Your task to perform on an android device: turn off picture-in-picture Image 0: 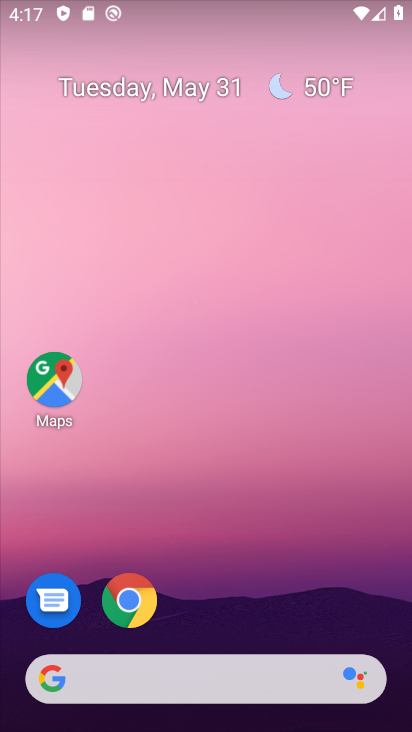
Step 0: click (128, 596)
Your task to perform on an android device: turn off picture-in-picture Image 1: 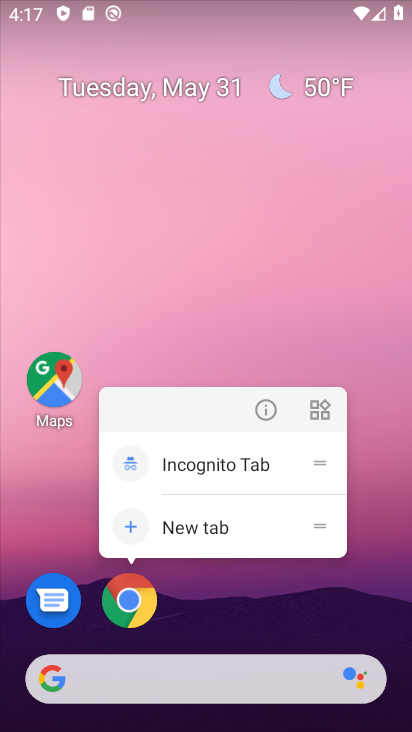
Step 1: click (262, 411)
Your task to perform on an android device: turn off picture-in-picture Image 2: 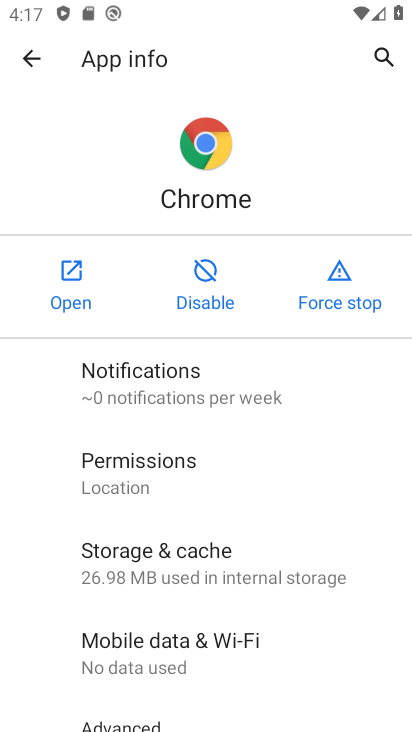
Step 2: drag from (221, 471) to (218, 335)
Your task to perform on an android device: turn off picture-in-picture Image 3: 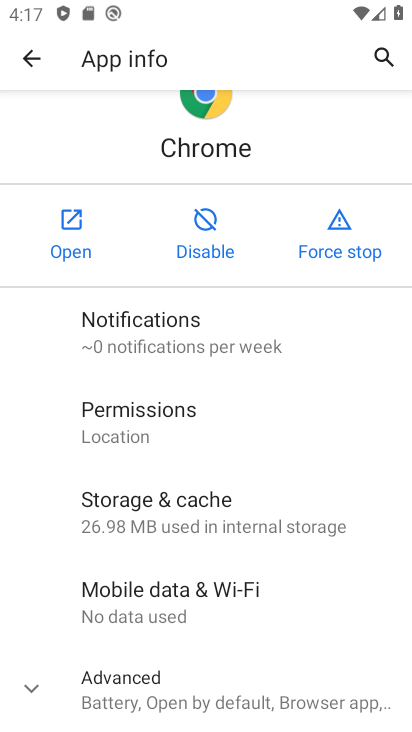
Step 3: drag from (192, 564) to (196, 458)
Your task to perform on an android device: turn off picture-in-picture Image 4: 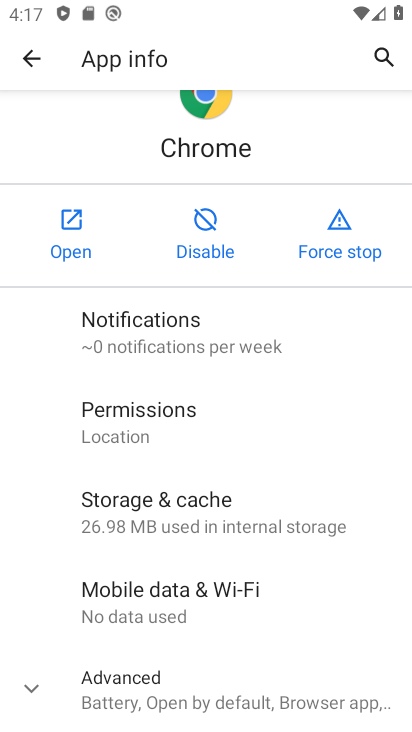
Step 4: click (140, 694)
Your task to perform on an android device: turn off picture-in-picture Image 5: 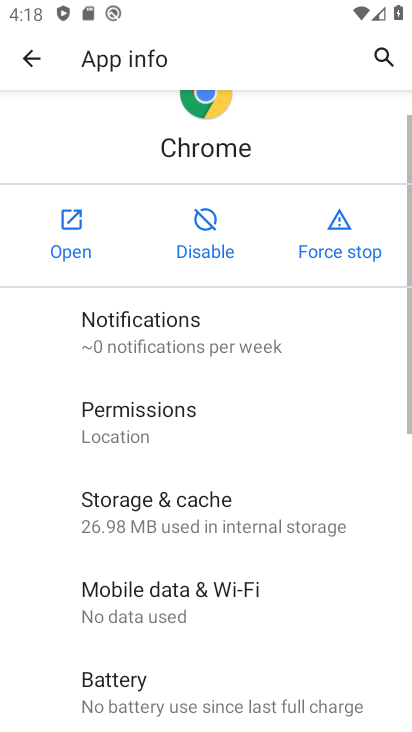
Step 5: drag from (166, 634) to (223, 535)
Your task to perform on an android device: turn off picture-in-picture Image 6: 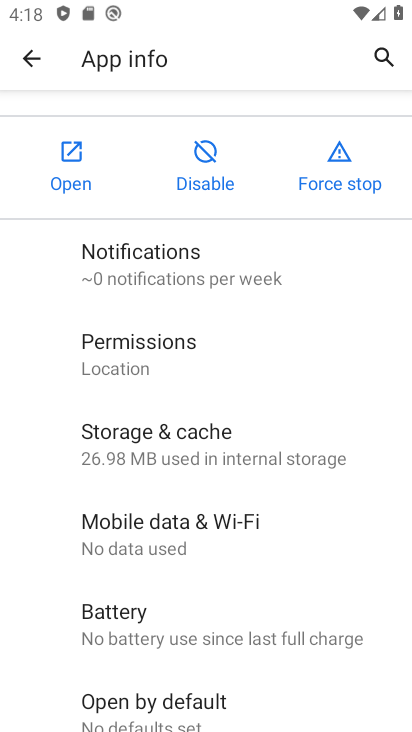
Step 6: drag from (161, 668) to (223, 579)
Your task to perform on an android device: turn off picture-in-picture Image 7: 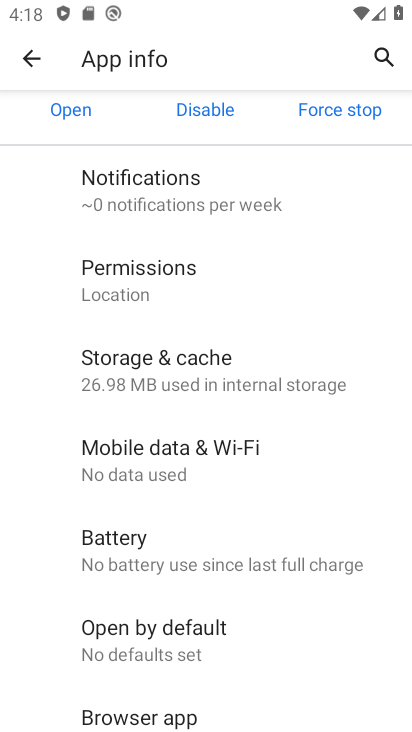
Step 7: drag from (148, 673) to (214, 600)
Your task to perform on an android device: turn off picture-in-picture Image 8: 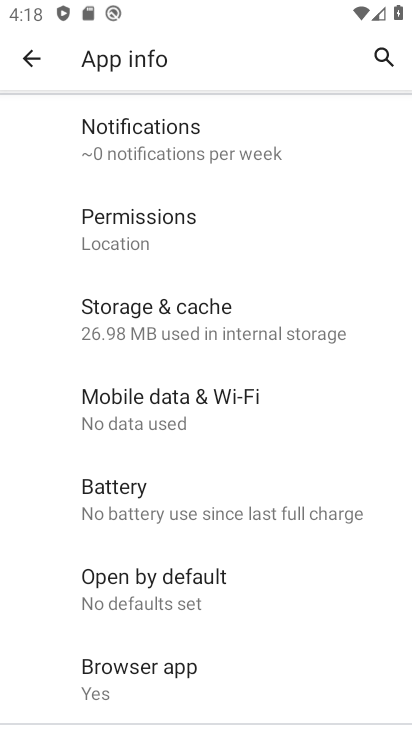
Step 8: drag from (175, 621) to (211, 489)
Your task to perform on an android device: turn off picture-in-picture Image 9: 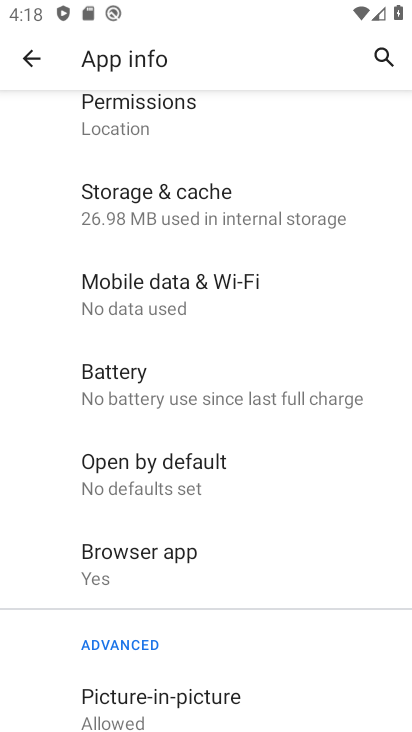
Step 9: drag from (200, 654) to (238, 540)
Your task to perform on an android device: turn off picture-in-picture Image 10: 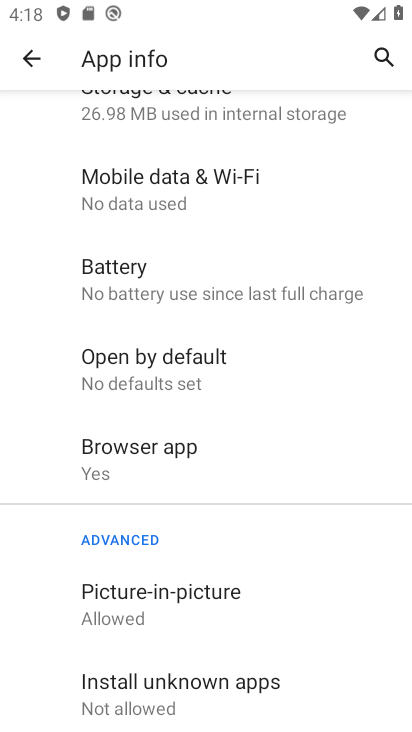
Step 10: click (191, 604)
Your task to perform on an android device: turn off picture-in-picture Image 11: 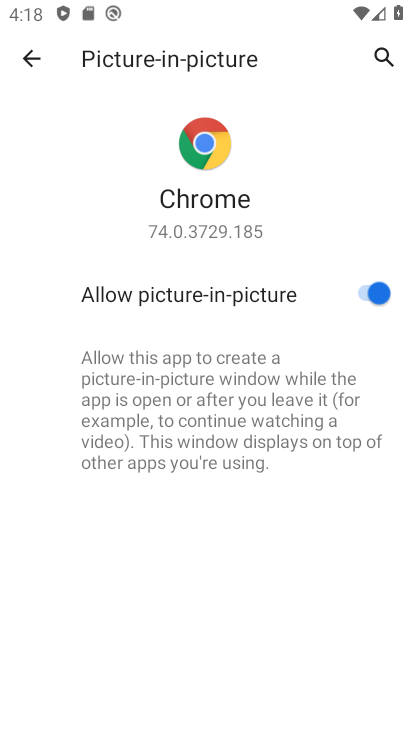
Step 11: click (368, 293)
Your task to perform on an android device: turn off picture-in-picture Image 12: 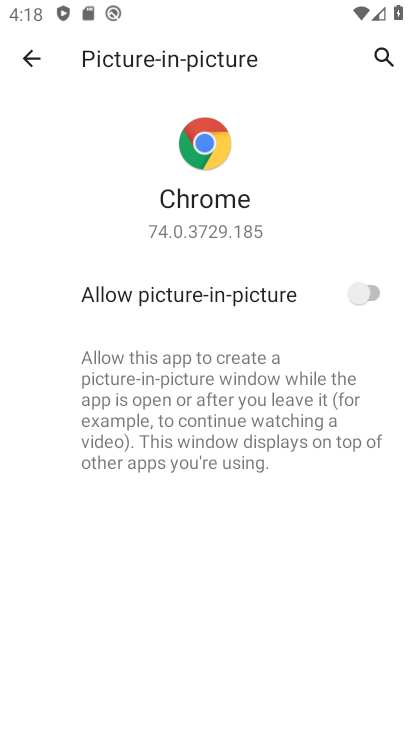
Step 12: task complete